Your task to perform on an android device: Add razer blade to the cart on walmart, then select checkout. Image 0: 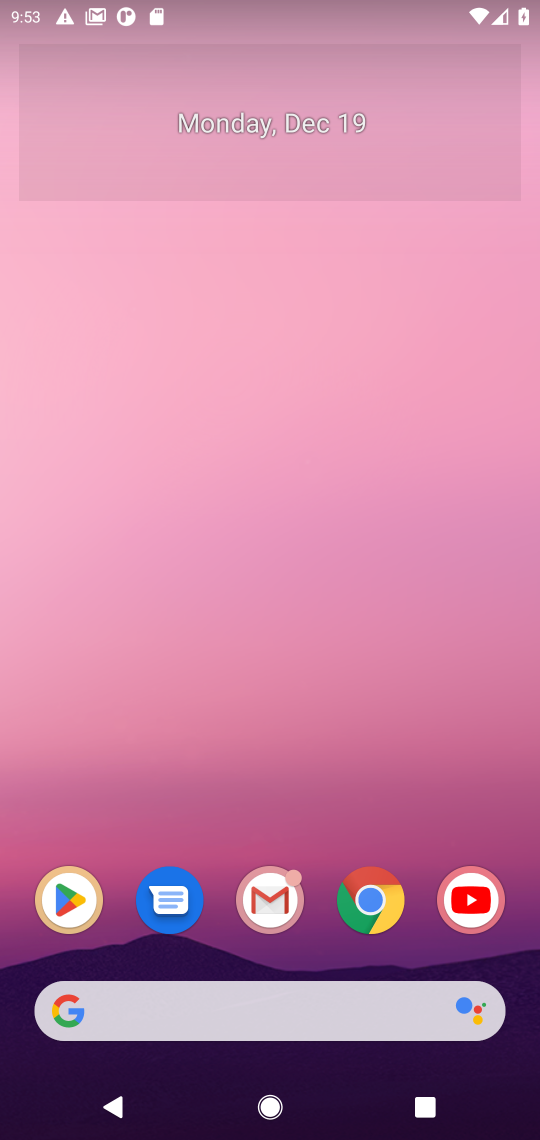
Step 0: click (376, 900)
Your task to perform on an android device: Add razer blade to the cart on walmart, then select checkout. Image 1: 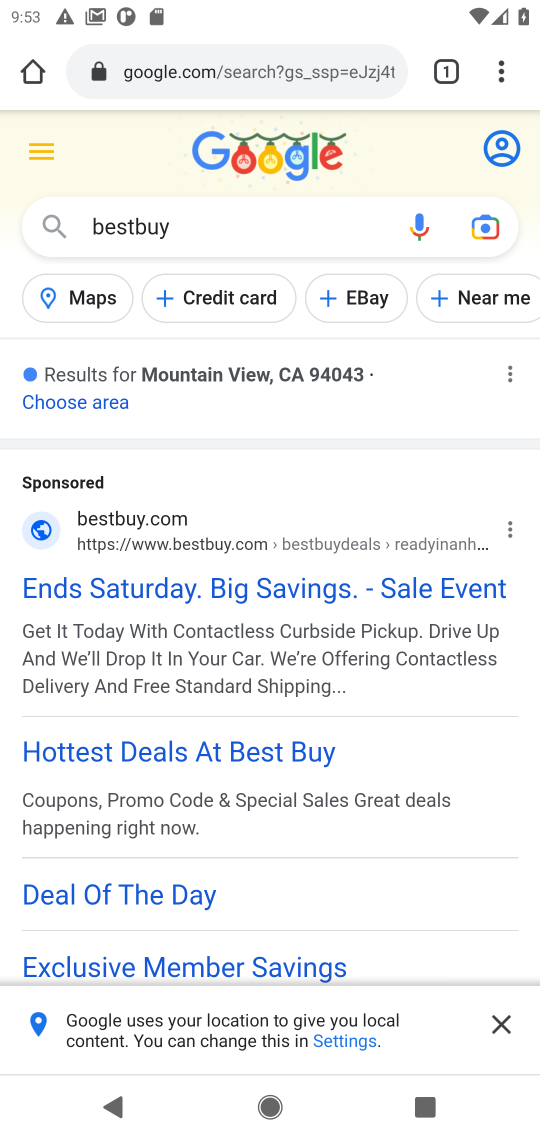
Step 1: click (343, 79)
Your task to perform on an android device: Add razer blade to the cart on walmart, then select checkout. Image 2: 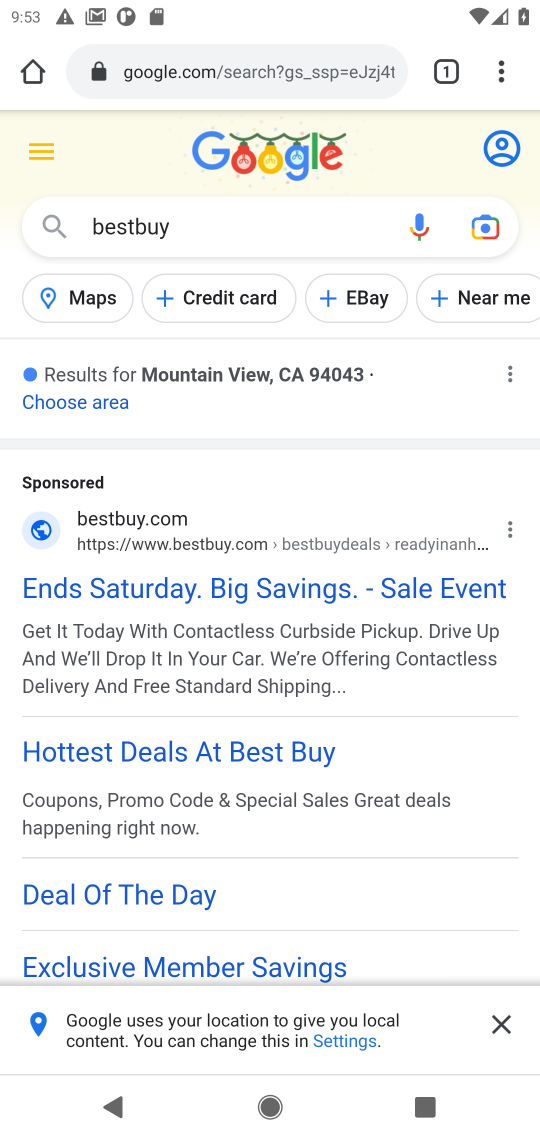
Step 2: click (297, 69)
Your task to perform on an android device: Add razer blade to the cart on walmart, then select checkout. Image 3: 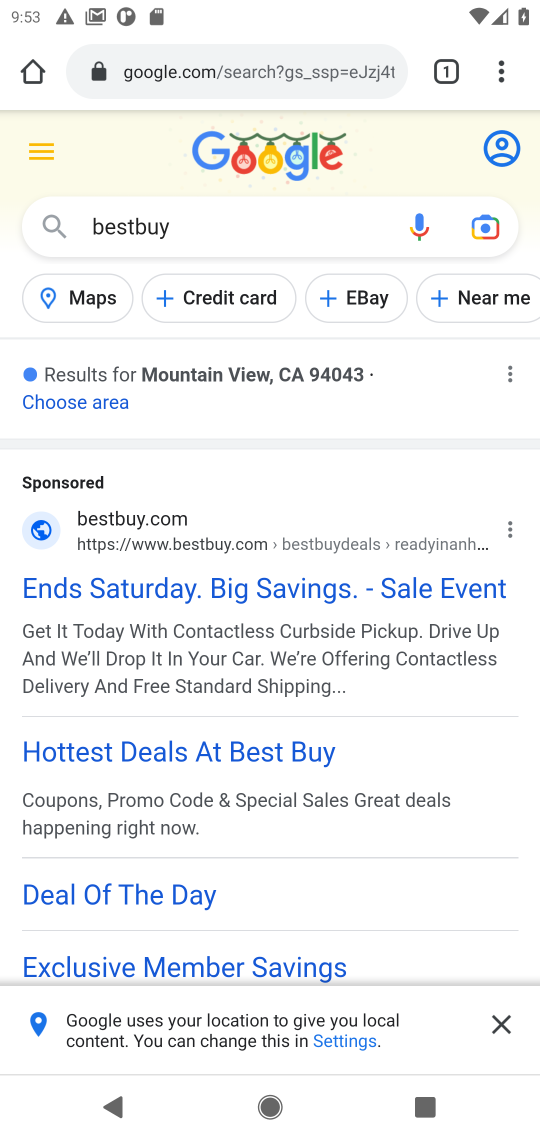
Step 3: click (279, 79)
Your task to perform on an android device: Add razer blade to the cart on walmart, then select checkout. Image 4: 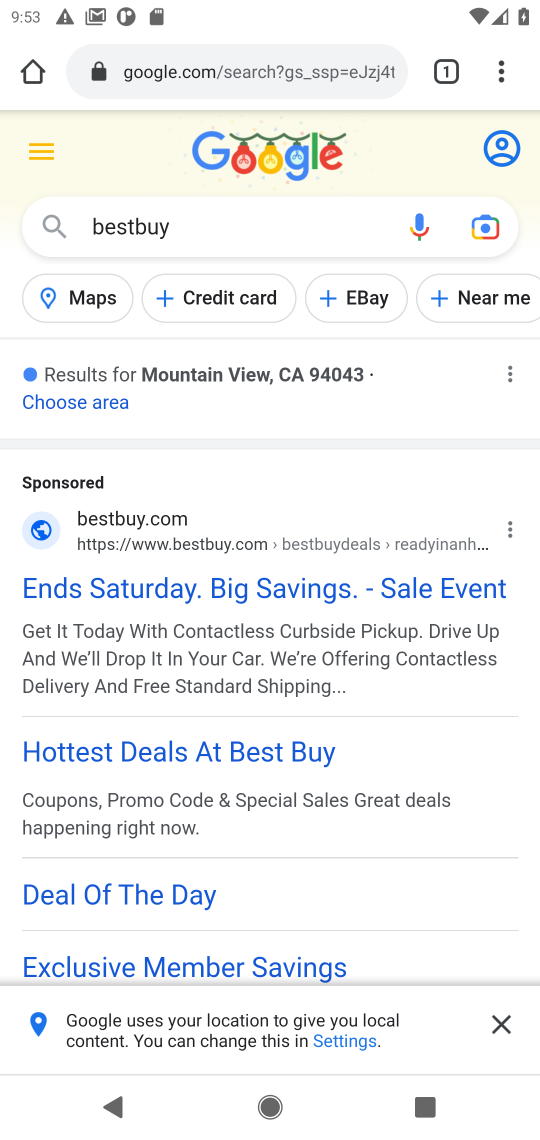
Step 4: type "walmart"
Your task to perform on an android device: Add razer blade to the cart on walmart, then select checkout. Image 5: 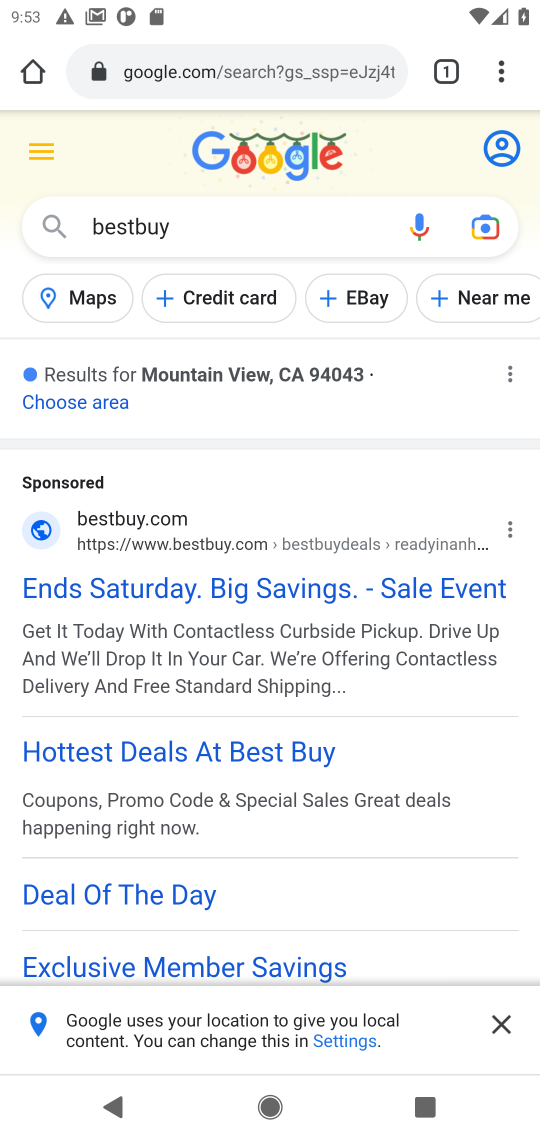
Step 5: click (282, 150)
Your task to perform on an android device: Add razer blade to the cart on walmart, then select checkout. Image 6: 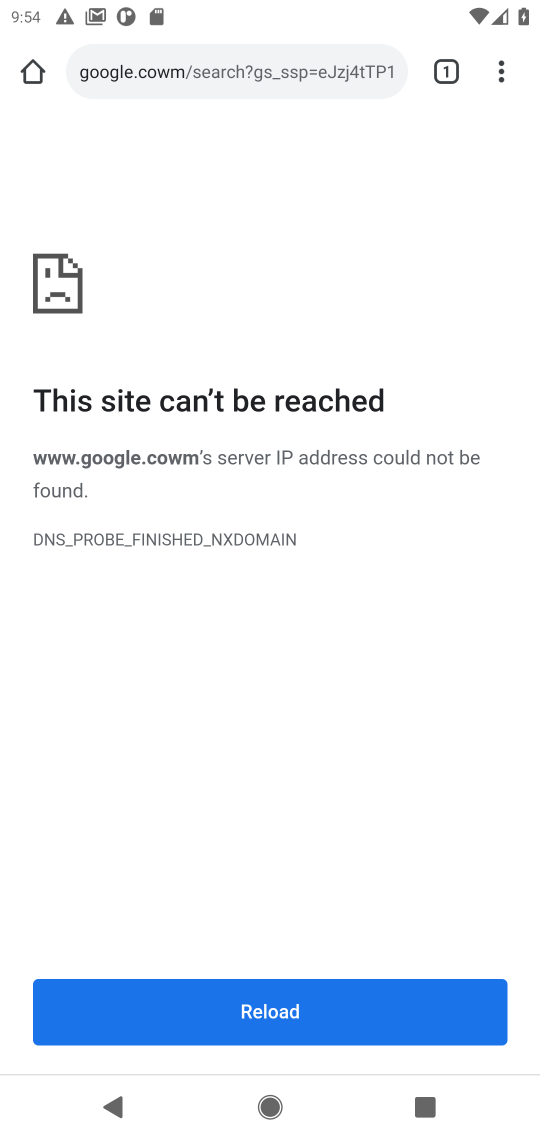
Step 6: task complete